Your task to perform on an android device: manage bookmarks in the chrome app Image 0: 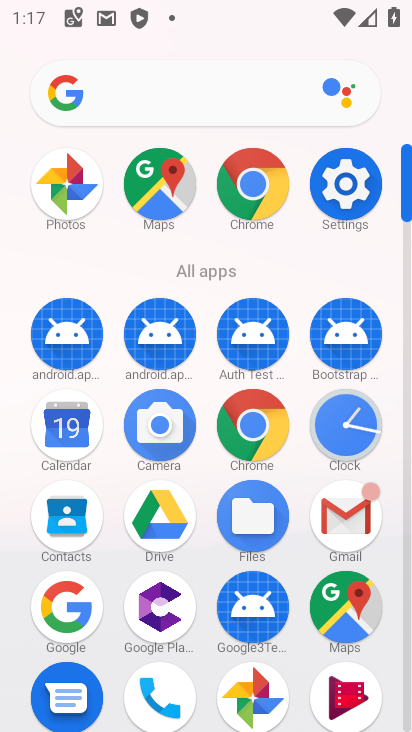
Step 0: click (249, 192)
Your task to perform on an android device: manage bookmarks in the chrome app Image 1: 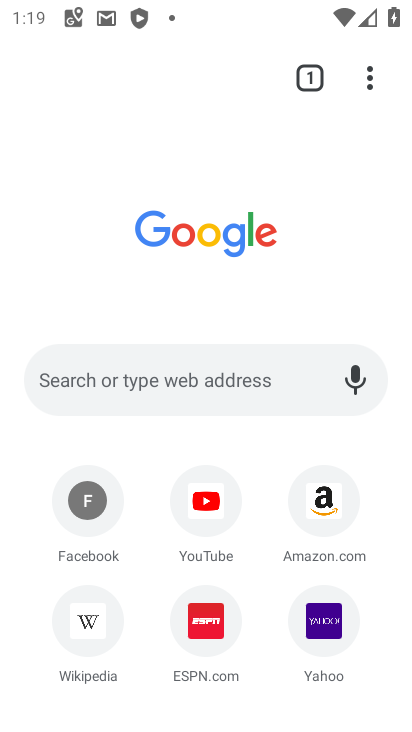
Step 1: click (378, 80)
Your task to perform on an android device: manage bookmarks in the chrome app Image 2: 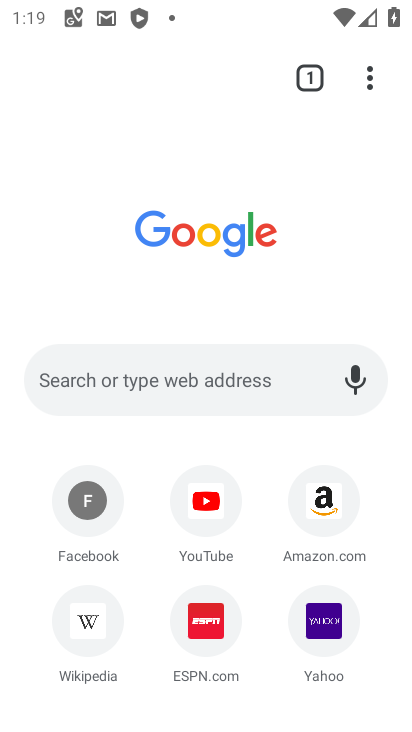
Step 2: click (372, 75)
Your task to perform on an android device: manage bookmarks in the chrome app Image 3: 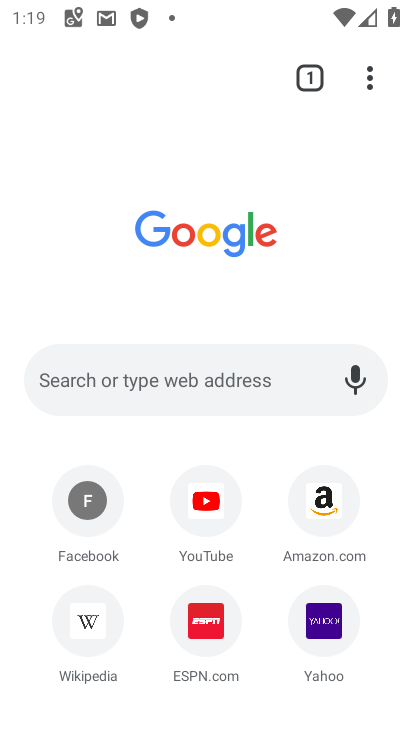
Step 3: click (363, 85)
Your task to perform on an android device: manage bookmarks in the chrome app Image 4: 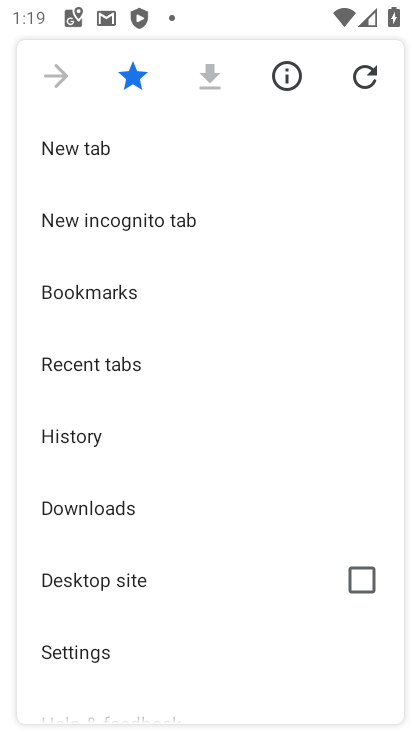
Step 4: click (92, 288)
Your task to perform on an android device: manage bookmarks in the chrome app Image 5: 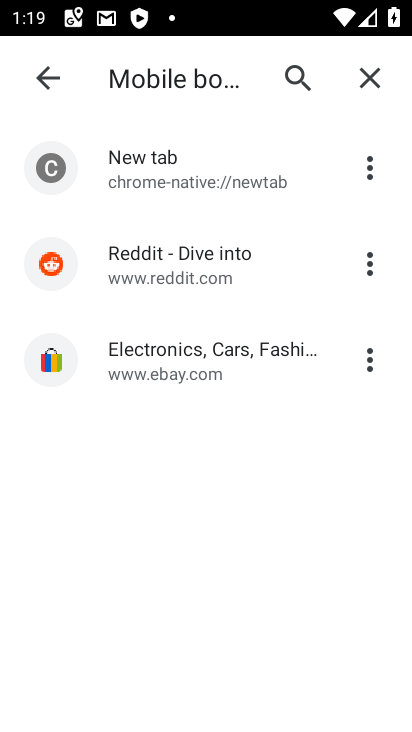
Step 5: task complete